Your task to perform on an android device: Go to sound settings Image 0: 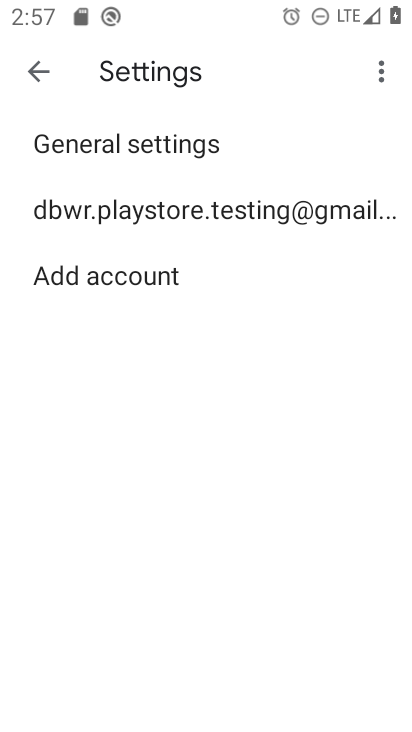
Step 0: press home button
Your task to perform on an android device: Go to sound settings Image 1: 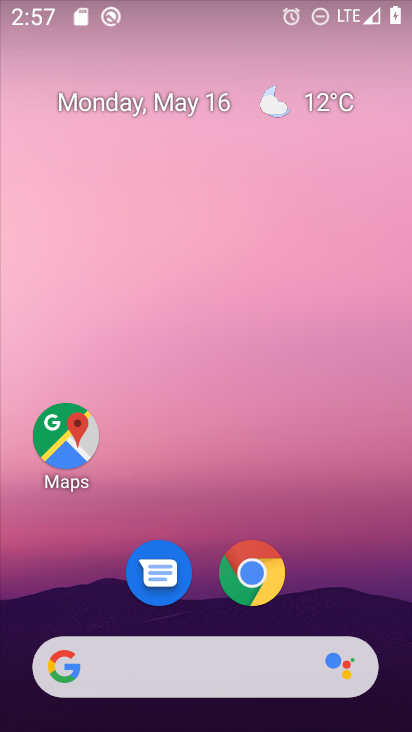
Step 1: drag from (147, 666) to (281, 0)
Your task to perform on an android device: Go to sound settings Image 2: 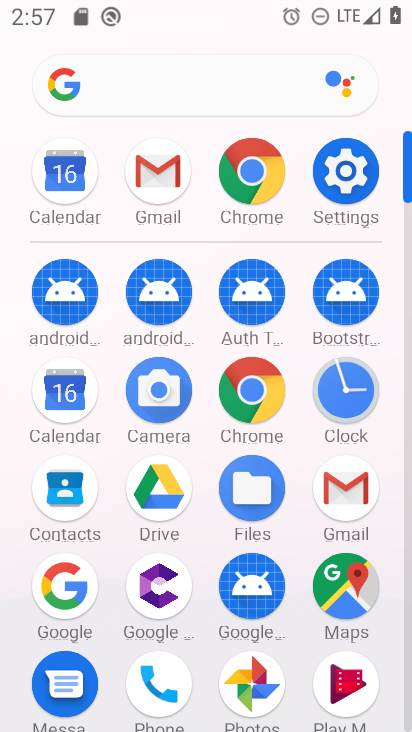
Step 2: click (334, 174)
Your task to perform on an android device: Go to sound settings Image 3: 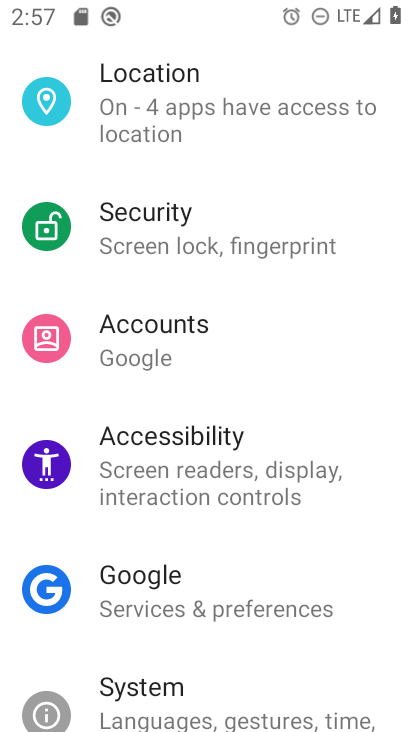
Step 3: drag from (187, 237) to (189, 648)
Your task to perform on an android device: Go to sound settings Image 4: 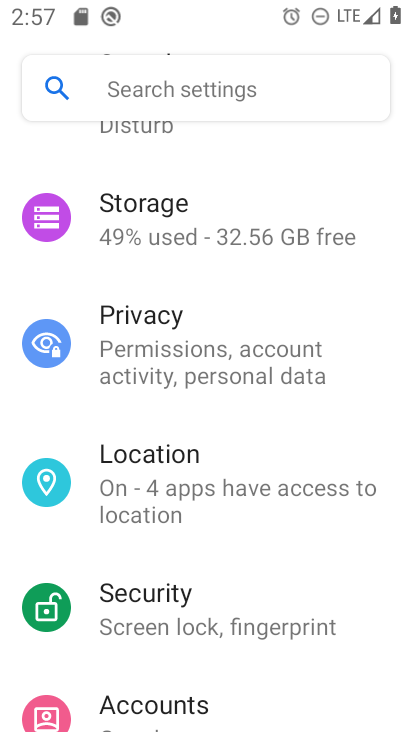
Step 4: drag from (175, 232) to (175, 682)
Your task to perform on an android device: Go to sound settings Image 5: 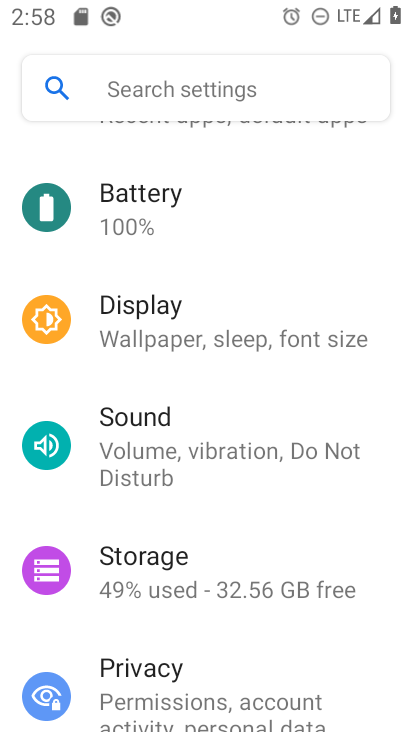
Step 5: click (137, 423)
Your task to perform on an android device: Go to sound settings Image 6: 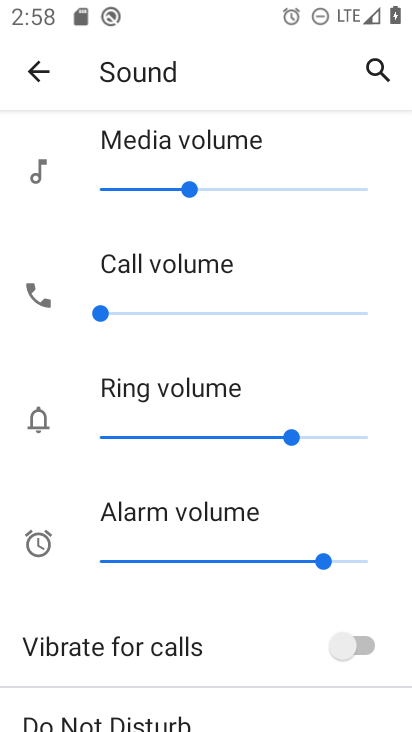
Step 6: task complete